Your task to perform on an android device: Go to CNN.com Image 0: 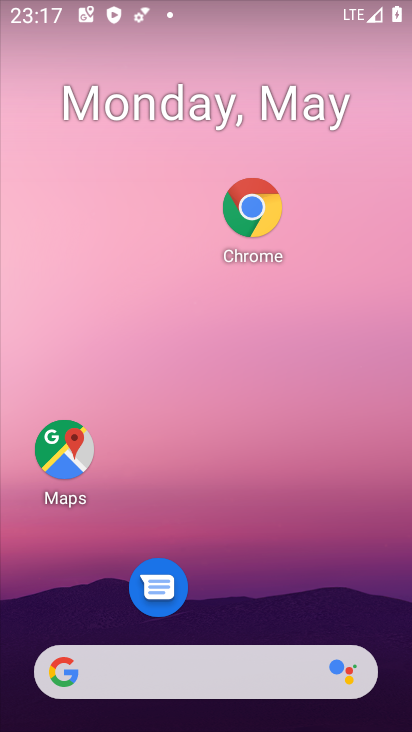
Step 0: drag from (178, 484) to (157, 221)
Your task to perform on an android device: Go to CNN.com Image 1: 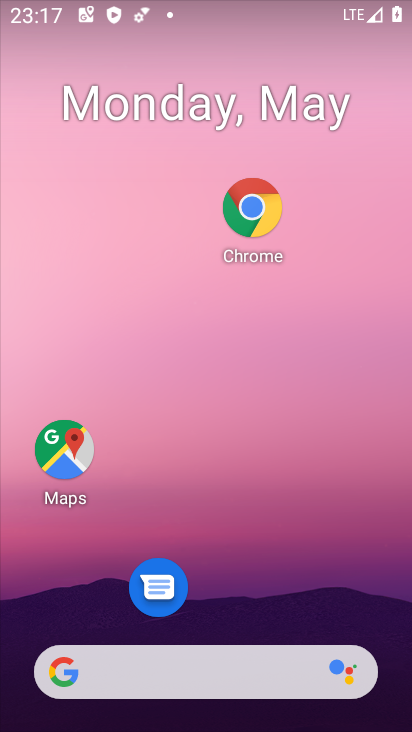
Step 1: drag from (219, 305) to (151, 74)
Your task to perform on an android device: Go to CNN.com Image 2: 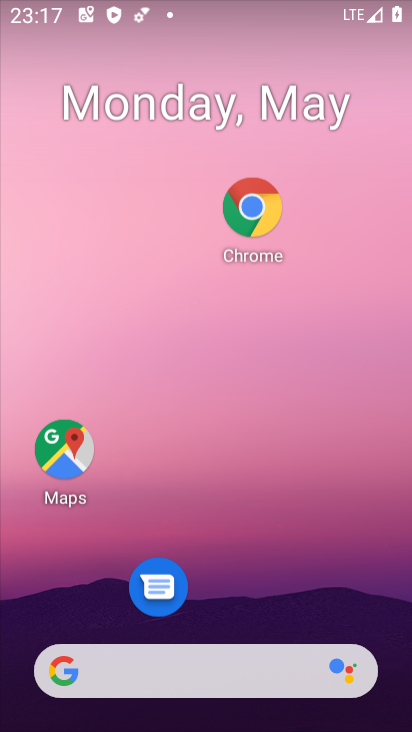
Step 2: drag from (215, 294) to (185, 24)
Your task to perform on an android device: Go to CNN.com Image 3: 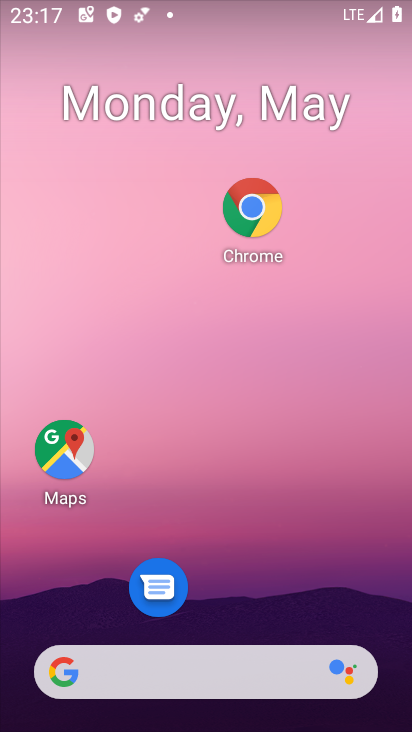
Step 3: click (197, 27)
Your task to perform on an android device: Go to CNN.com Image 4: 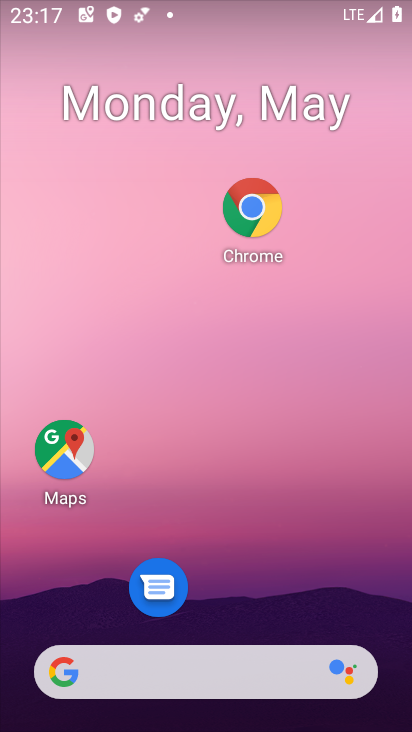
Step 4: drag from (322, 633) to (175, 5)
Your task to perform on an android device: Go to CNN.com Image 5: 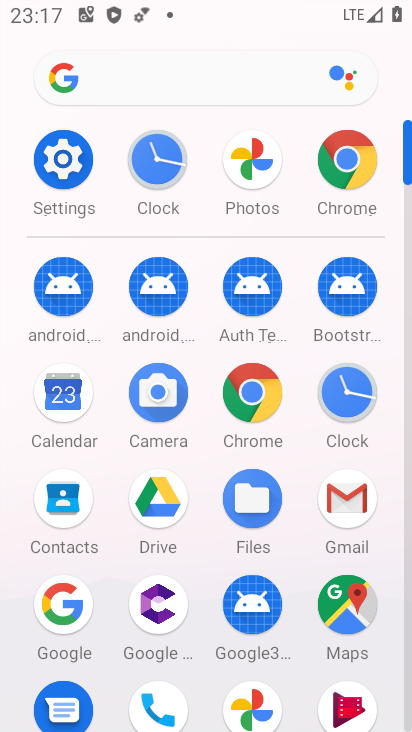
Step 5: drag from (249, 542) to (178, 30)
Your task to perform on an android device: Go to CNN.com Image 6: 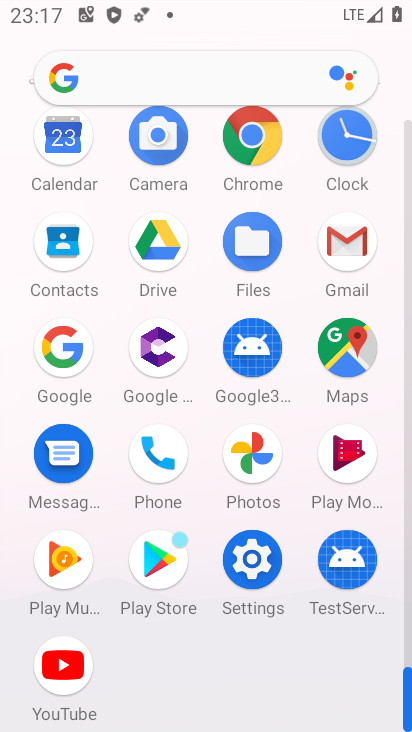
Step 6: click (236, 145)
Your task to perform on an android device: Go to CNN.com Image 7: 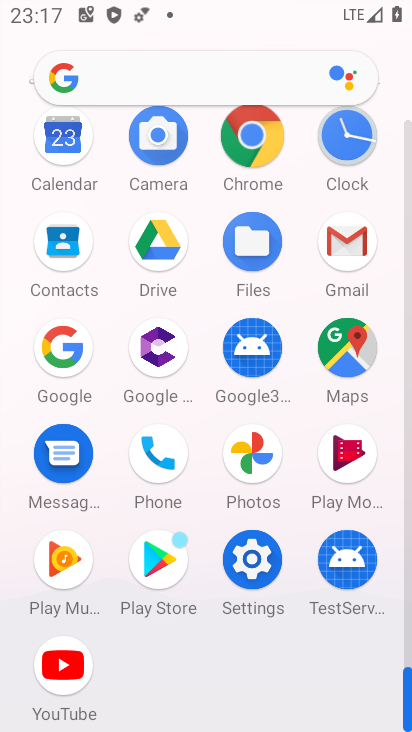
Step 7: click (242, 142)
Your task to perform on an android device: Go to CNN.com Image 8: 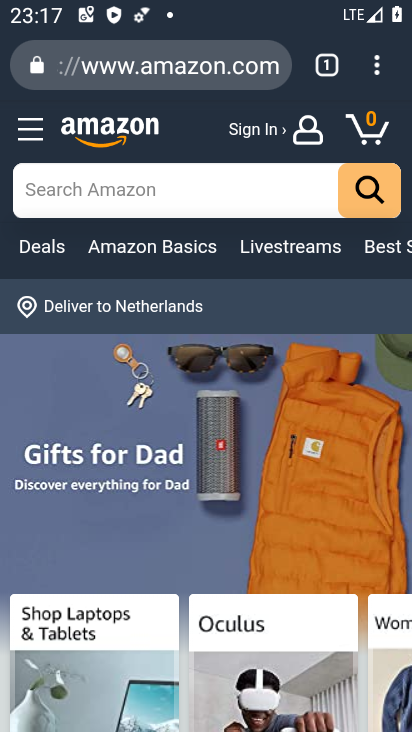
Step 8: drag from (377, 65) to (123, 138)
Your task to perform on an android device: Go to CNN.com Image 9: 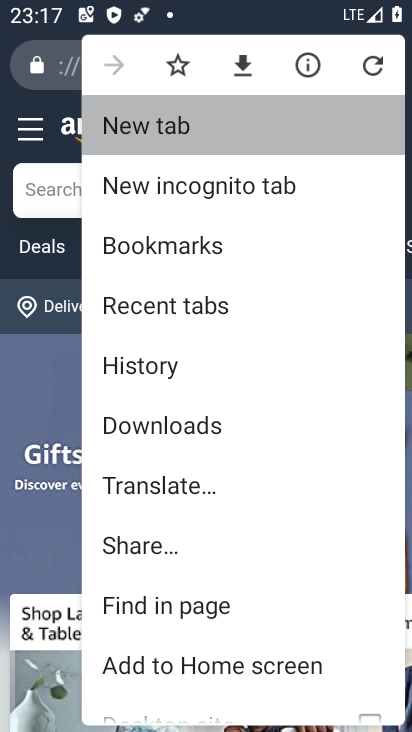
Step 9: click (123, 136)
Your task to perform on an android device: Go to CNN.com Image 10: 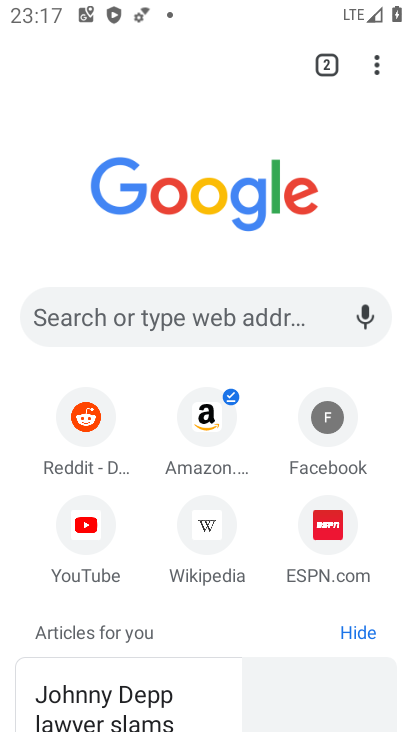
Step 10: click (75, 323)
Your task to perform on an android device: Go to CNN.com Image 11: 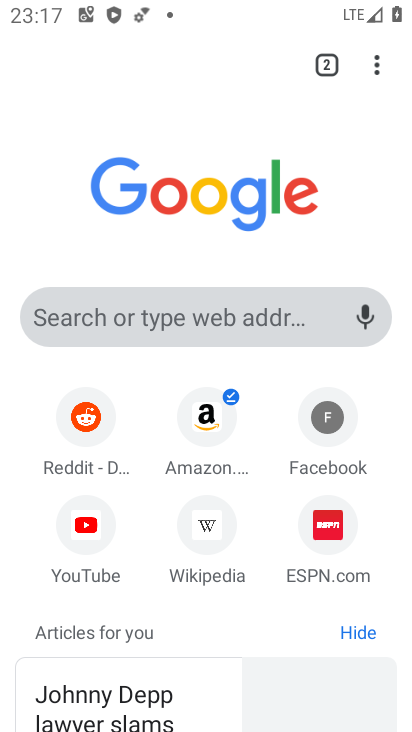
Step 11: click (75, 323)
Your task to perform on an android device: Go to CNN.com Image 12: 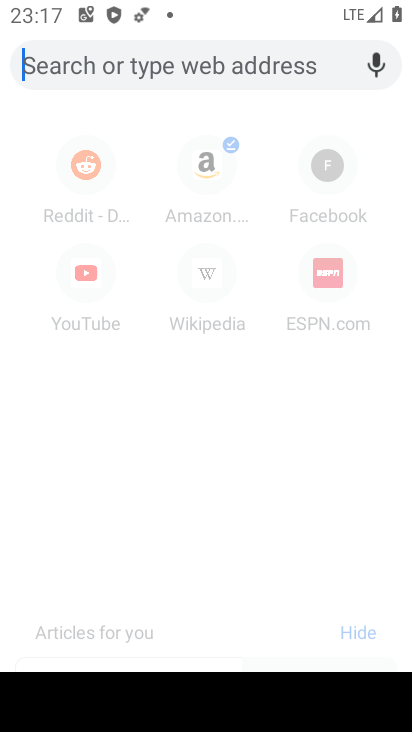
Step 12: type "cnn.com"
Your task to perform on an android device: Go to CNN.com Image 13: 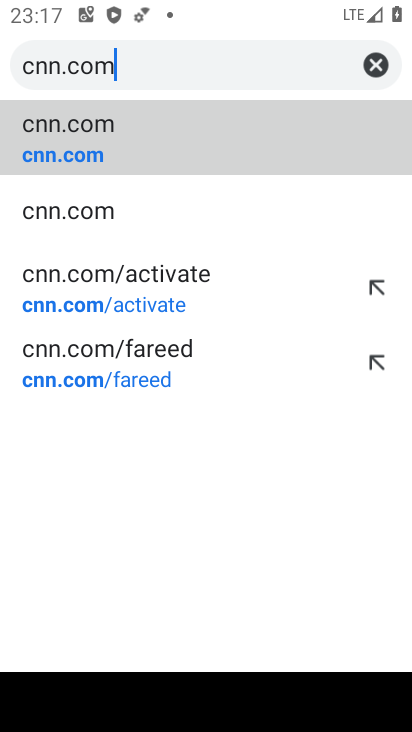
Step 13: click (46, 160)
Your task to perform on an android device: Go to CNN.com Image 14: 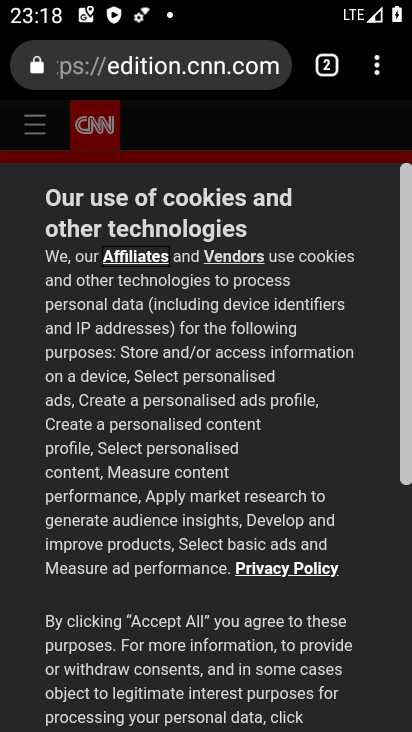
Step 14: press back button
Your task to perform on an android device: Go to CNN.com Image 15: 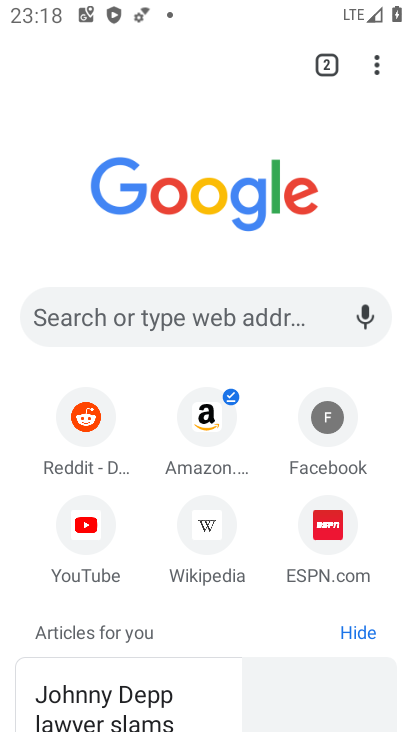
Step 15: press home button
Your task to perform on an android device: Go to CNN.com Image 16: 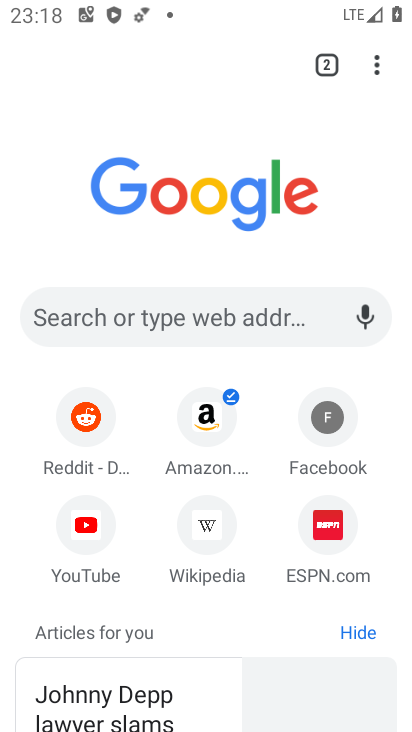
Step 16: press home button
Your task to perform on an android device: Go to CNN.com Image 17: 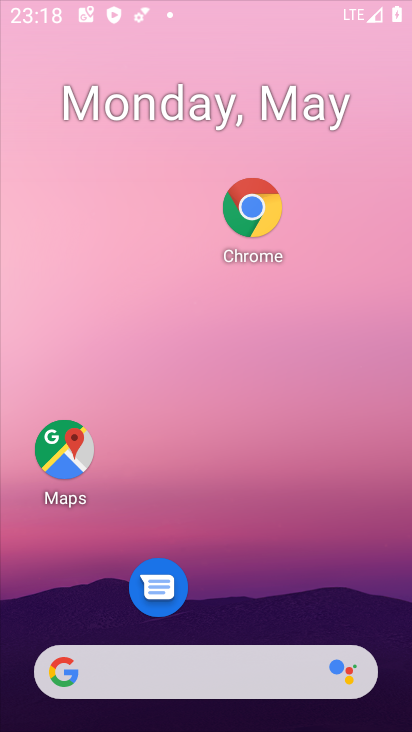
Step 17: press home button
Your task to perform on an android device: Go to CNN.com Image 18: 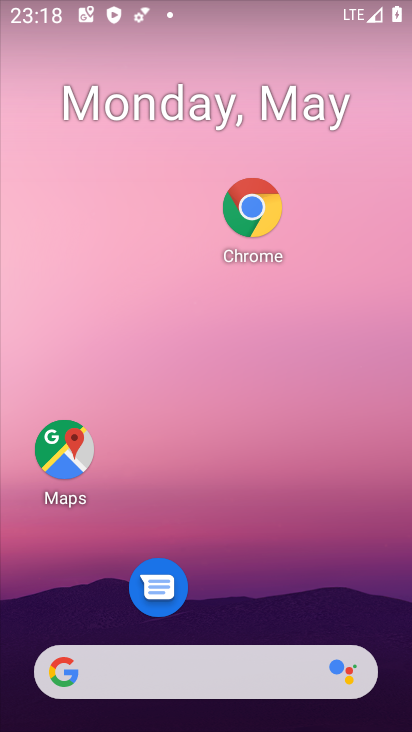
Step 18: drag from (309, 633) to (264, 0)
Your task to perform on an android device: Go to CNN.com Image 19: 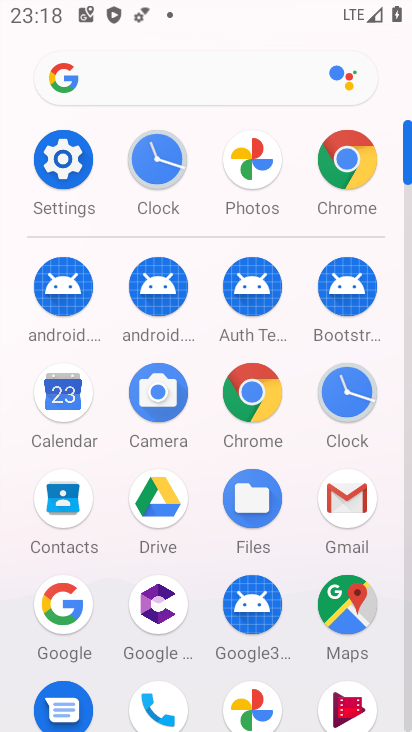
Step 19: click (347, 168)
Your task to perform on an android device: Go to CNN.com Image 20: 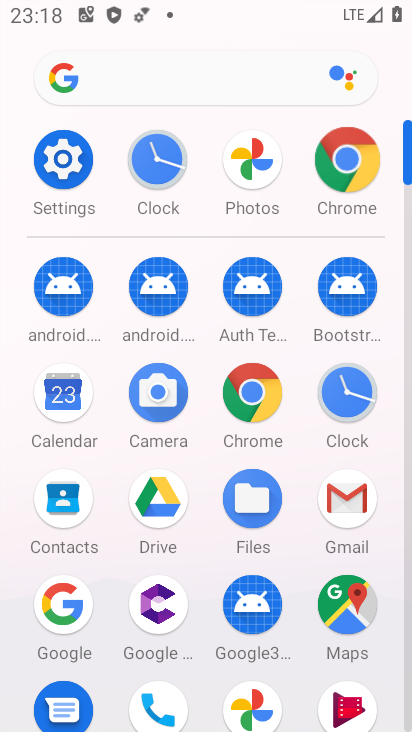
Step 20: click (348, 167)
Your task to perform on an android device: Go to CNN.com Image 21: 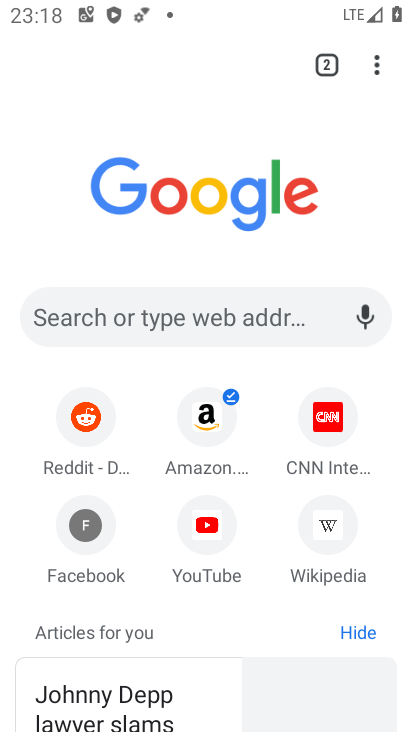
Step 21: click (64, 308)
Your task to perform on an android device: Go to CNN.com Image 22: 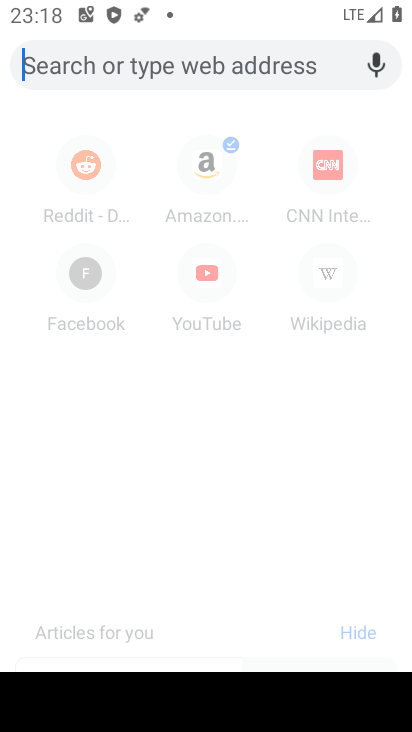
Step 22: type "cnn.com"
Your task to perform on an android device: Go to CNN.com Image 23: 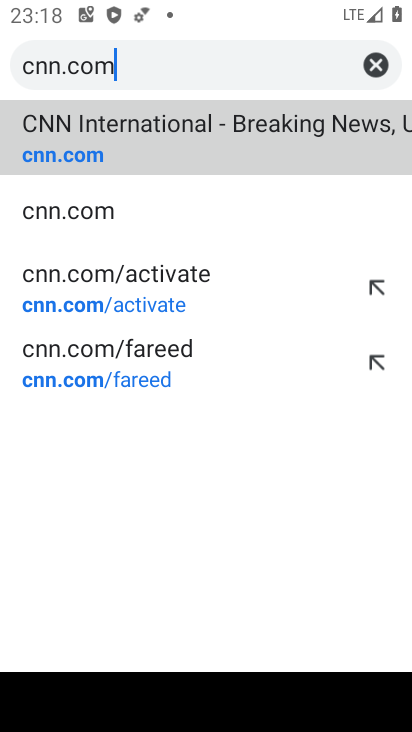
Step 23: click (51, 156)
Your task to perform on an android device: Go to CNN.com Image 24: 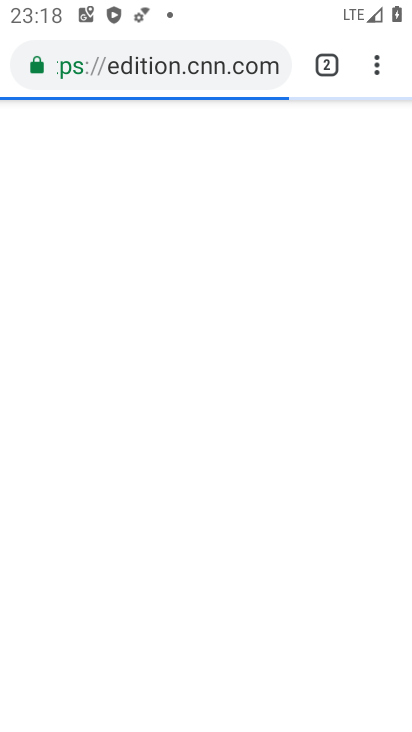
Step 24: task complete